Your task to perform on an android device: open chrome privacy settings Image 0: 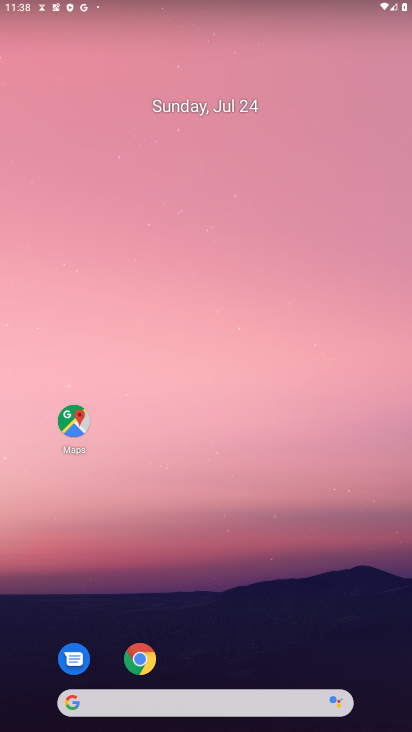
Step 0: drag from (326, 647) to (331, 301)
Your task to perform on an android device: open chrome privacy settings Image 1: 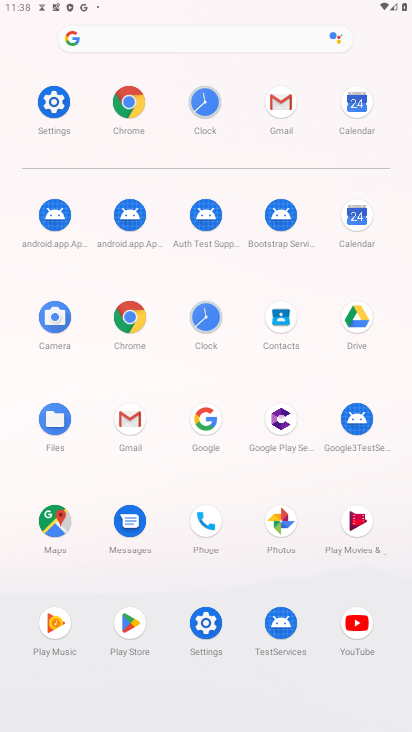
Step 1: click (122, 318)
Your task to perform on an android device: open chrome privacy settings Image 2: 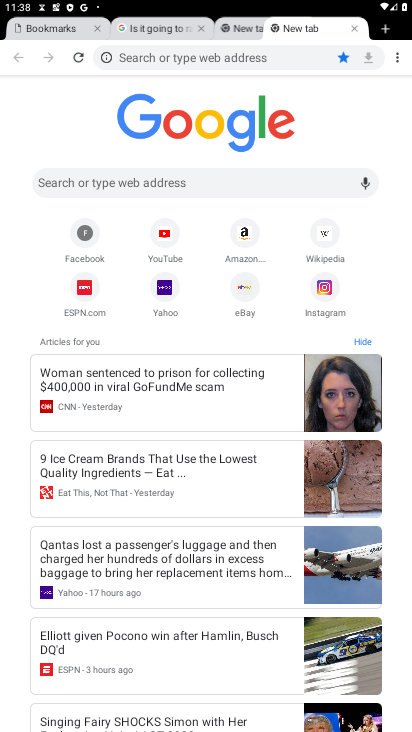
Step 2: click (402, 59)
Your task to perform on an android device: open chrome privacy settings Image 3: 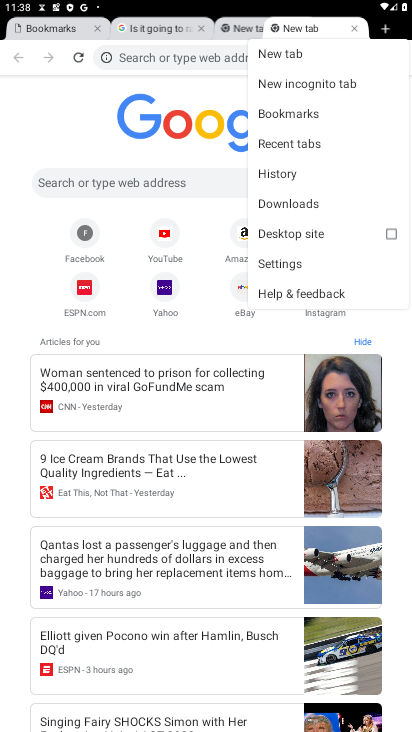
Step 3: click (259, 267)
Your task to perform on an android device: open chrome privacy settings Image 4: 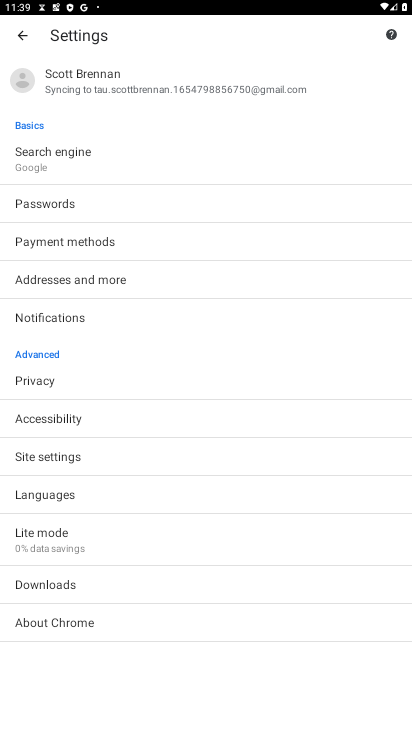
Step 4: click (69, 387)
Your task to perform on an android device: open chrome privacy settings Image 5: 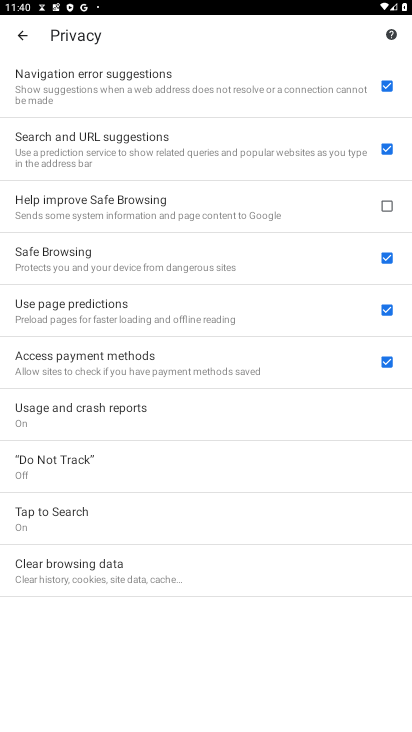
Step 5: task complete